Your task to perform on an android device: Open Google Chrome and click the shortcut for Amazon.com Image 0: 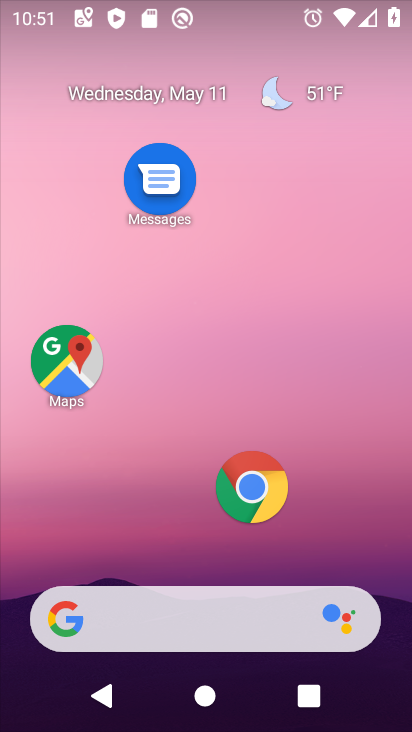
Step 0: click (256, 468)
Your task to perform on an android device: Open Google Chrome and click the shortcut for Amazon.com Image 1: 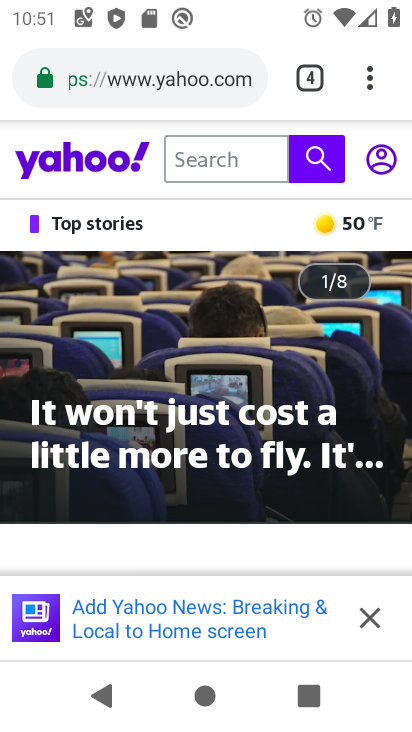
Step 1: click (311, 89)
Your task to perform on an android device: Open Google Chrome and click the shortcut for Amazon.com Image 2: 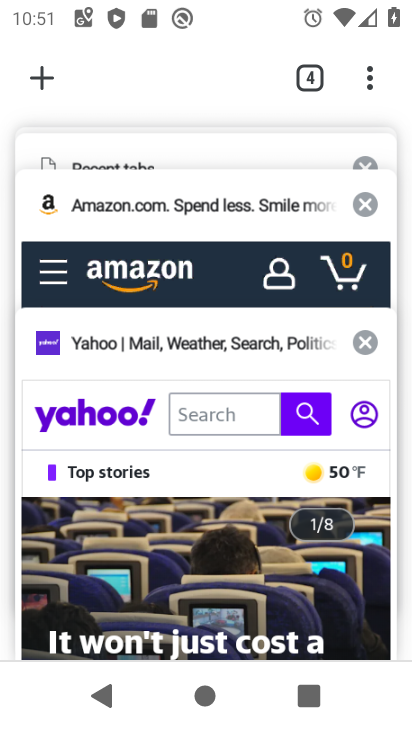
Step 2: click (189, 266)
Your task to perform on an android device: Open Google Chrome and click the shortcut for Amazon.com Image 3: 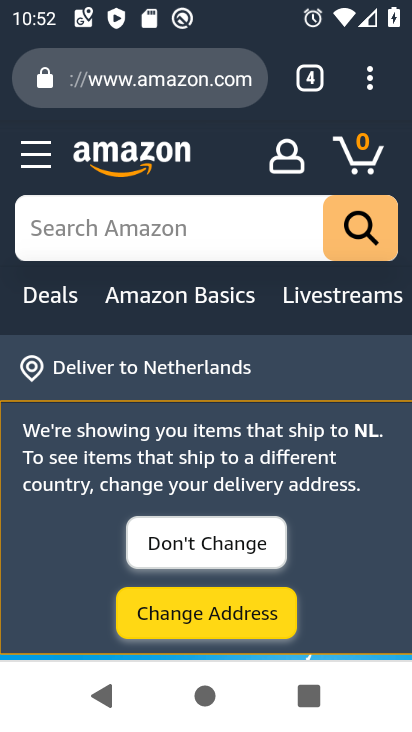
Step 3: task complete